Your task to perform on an android device: change the clock style Image 0: 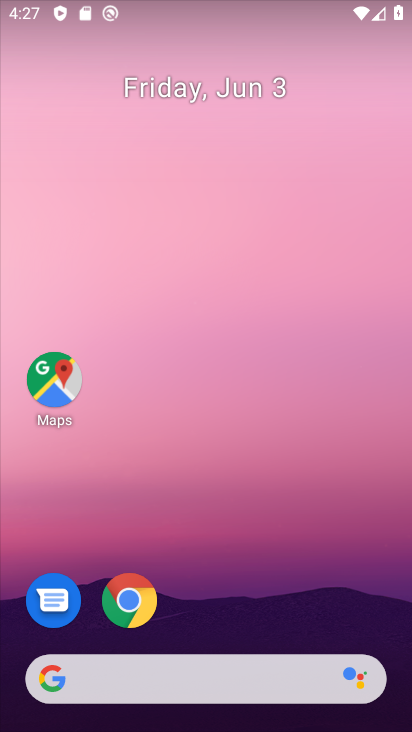
Step 0: drag from (255, 608) to (360, 202)
Your task to perform on an android device: change the clock style Image 1: 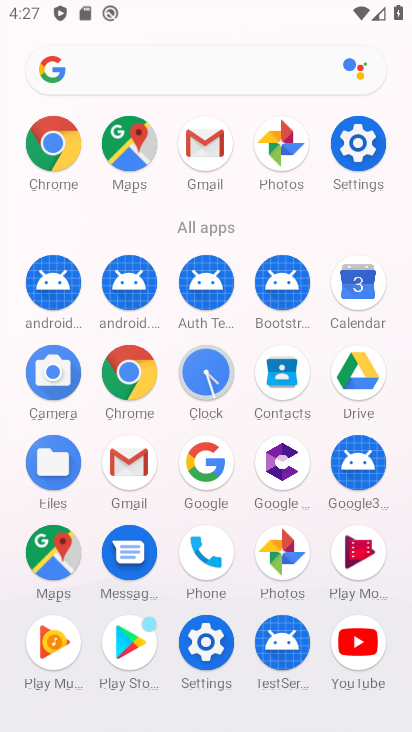
Step 1: click (206, 638)
Your task to perform on an android device: change the clock style Image 2: 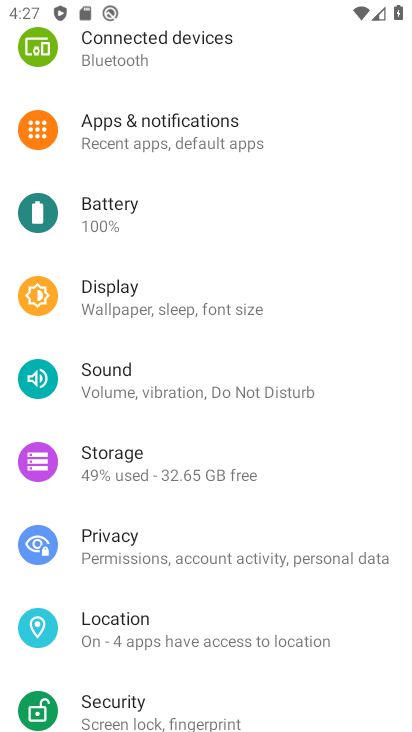
Step 2: click (206, 638)
Your task to perform on an android device: change the clock style Image 3: 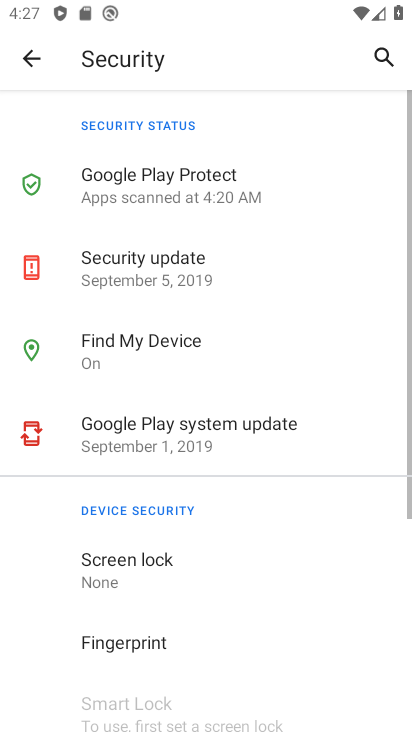
Step 3: press home button
Your task to perform on an android device: change the clock style Image 4: 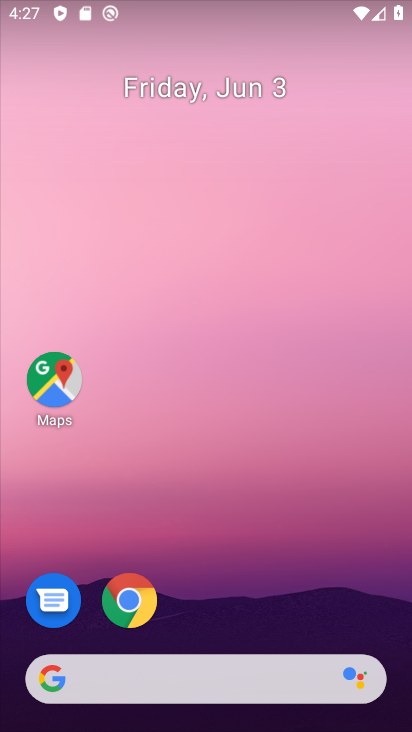
Step 4: drag from (254, 622) to (294, 204)
Your task to perform on an android device: change the clock style Image 5: 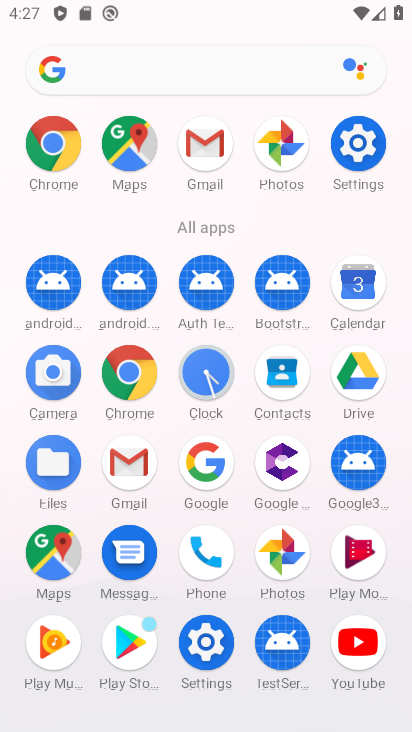
Step 5: click (212, 378)
Your task to perform on an android device: change the clock style Image 6: 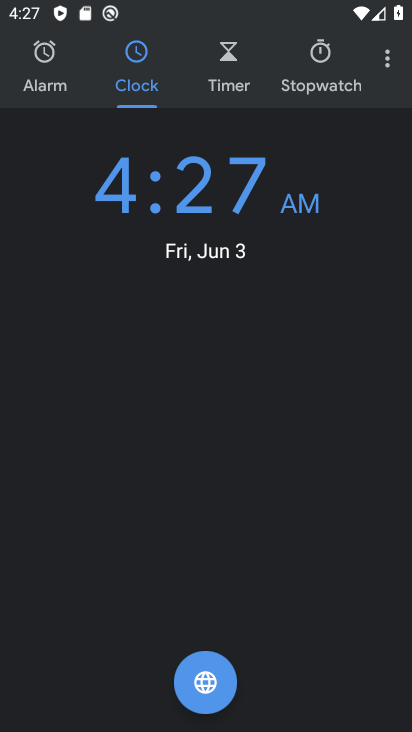
Step 6: click (376, 66)
Your task to perform on an android device: change the clock style Image 7: 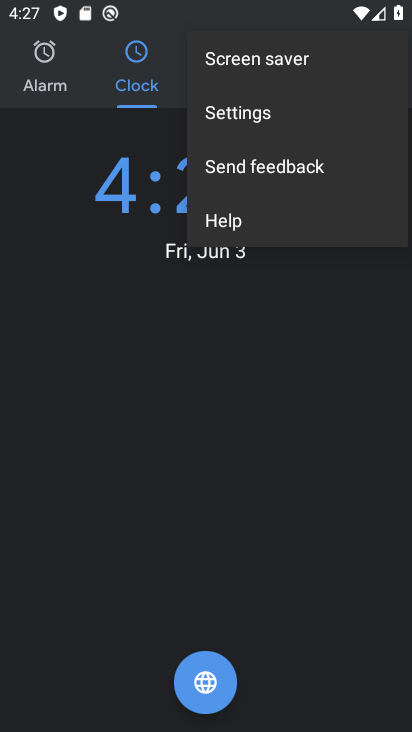
Step 7: click (248, 117)
Your task to perform on an android device: change the clock style Image 8: 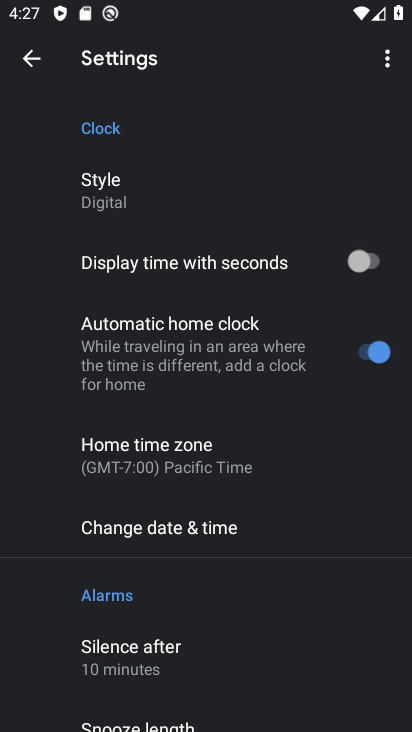
Step 8: click (125, 181)
Your task to perform on an android device: change the clock style Image 9: 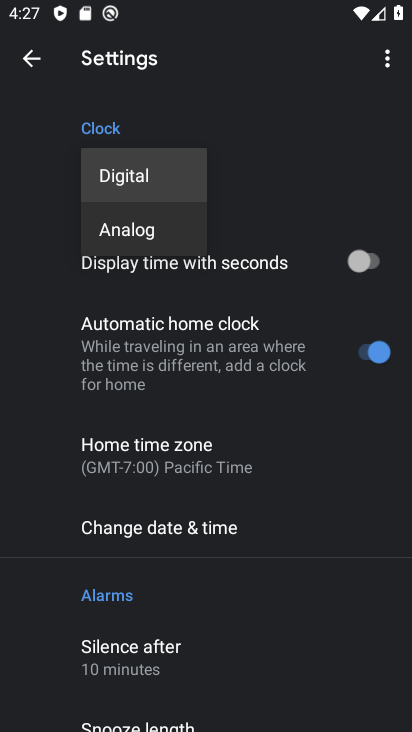
Step 9: click (124, 232)
Your task to perform on an android device: change the clock style Image 10: 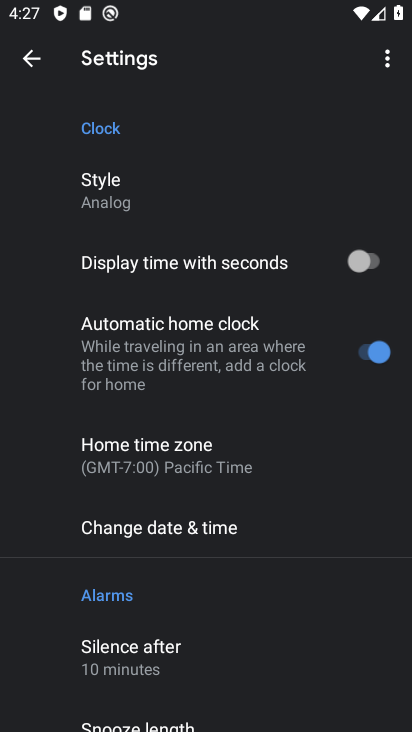
Step 10: task complete